Your task to perform on an android device: Search for Italian restaurants on Maps Image 0: 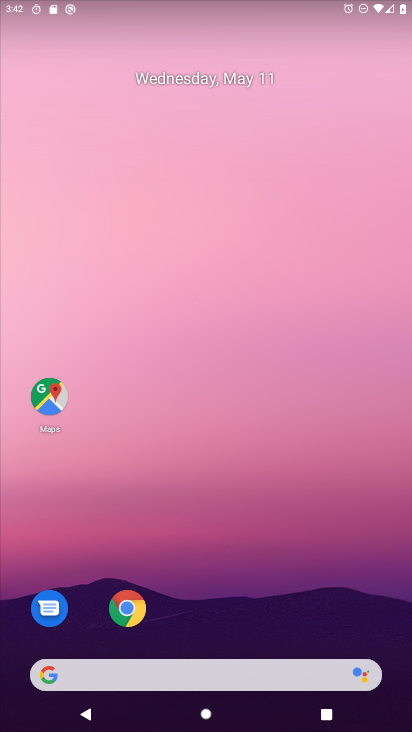
Step 0: drag from (232, 652) to (255, 43)
Your task to perform on an android device: Search for Italian restaurants on Maps Image 1: 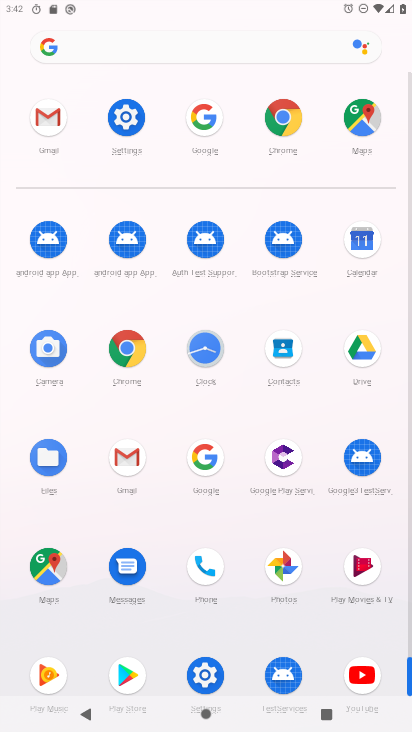
Step 1: click (42, 590)
Your task to perform on an android device: Search for Italian restaurants on Maps Image 2: 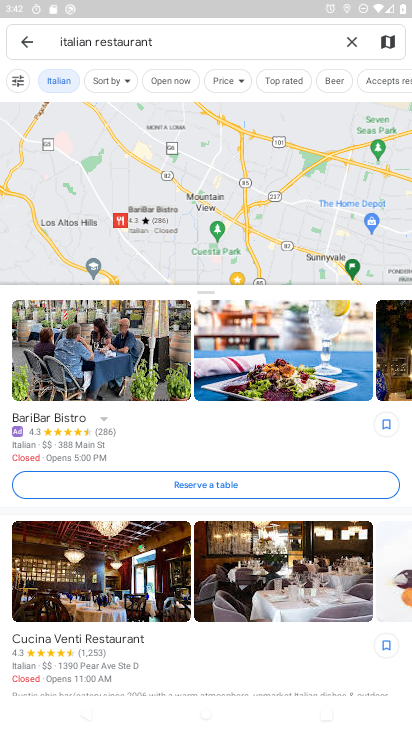
Step 2: task complete